Your task to perform on an android device: When is my next meeting? Image 0: 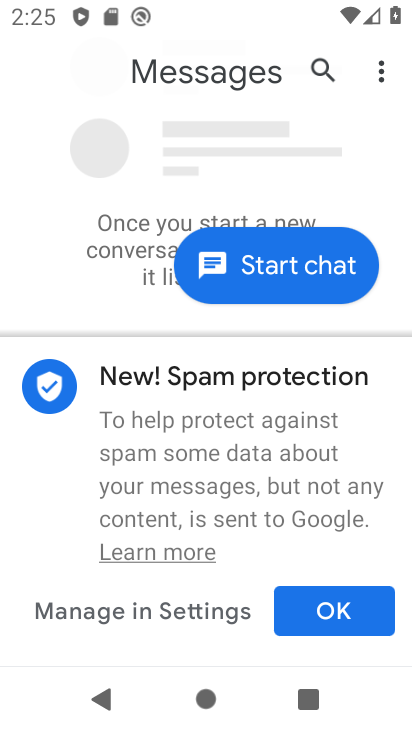
Step 0: press home button
Your task to perform on an android device: When is my next meeting? Image 1: 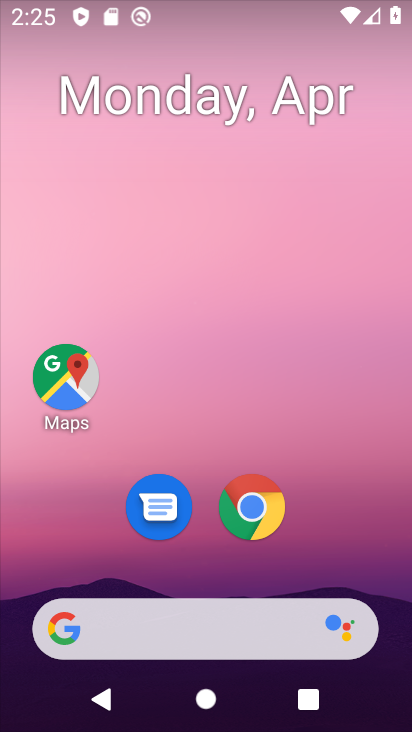
Step 1: drag from (384, 597) to (346, 105)
Your task to perform on an android device: When is my next meeting? Image 2: 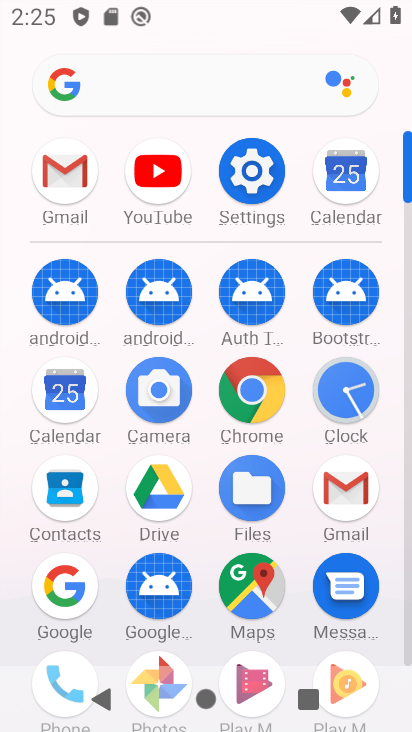
Step 2: click (407, 650)
Your task to perform on an android device: When is my next meeting? Image 3: 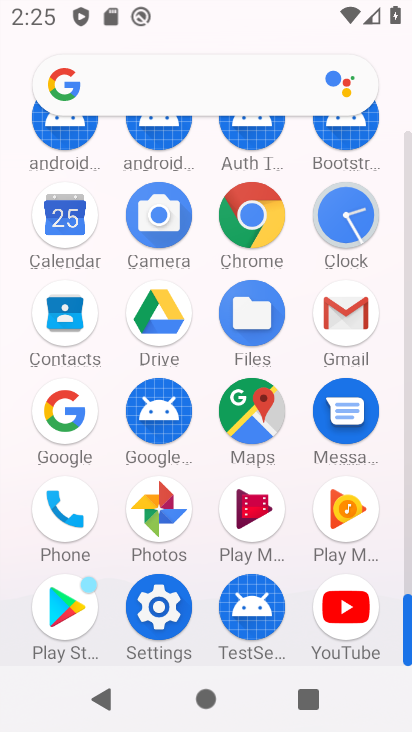
Step 3: click (57, 217)
Your task to perform on an android device: When is my next meeting? Image 4: 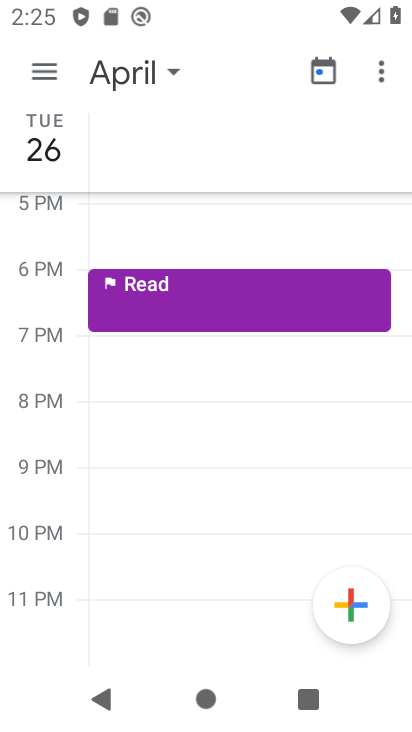
Step 4: click (44, 71)
Your task to perform on an android device: When is my next meeting? Image 5: 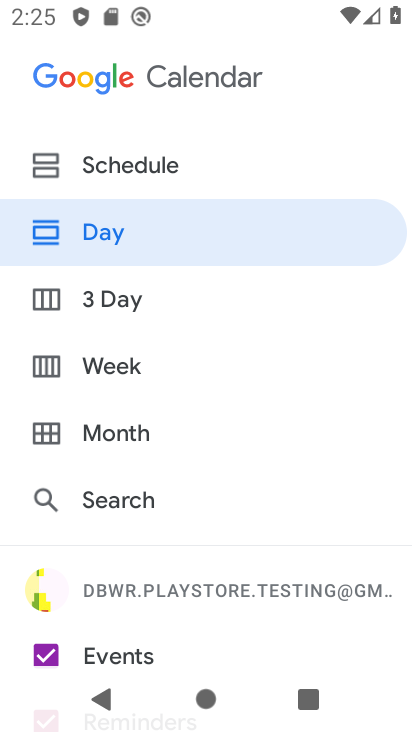
Step 5: click (114, 166)
Your task to perform on an android device: When is my next meeting? Image 6: 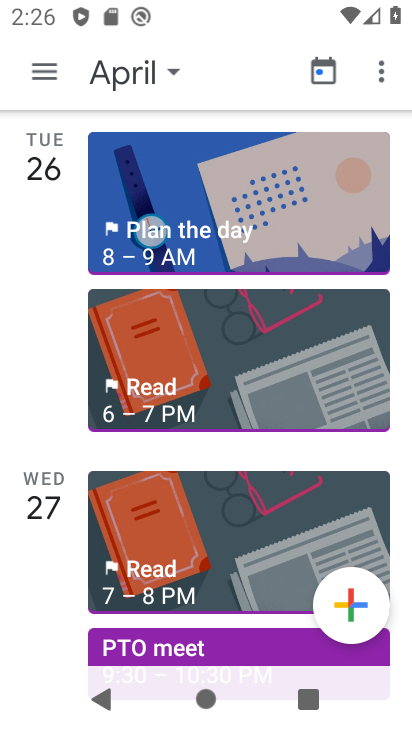
Step 6: task complete